Your task to perform on an android device: Empty the shopping cart on amazon. Image 0: 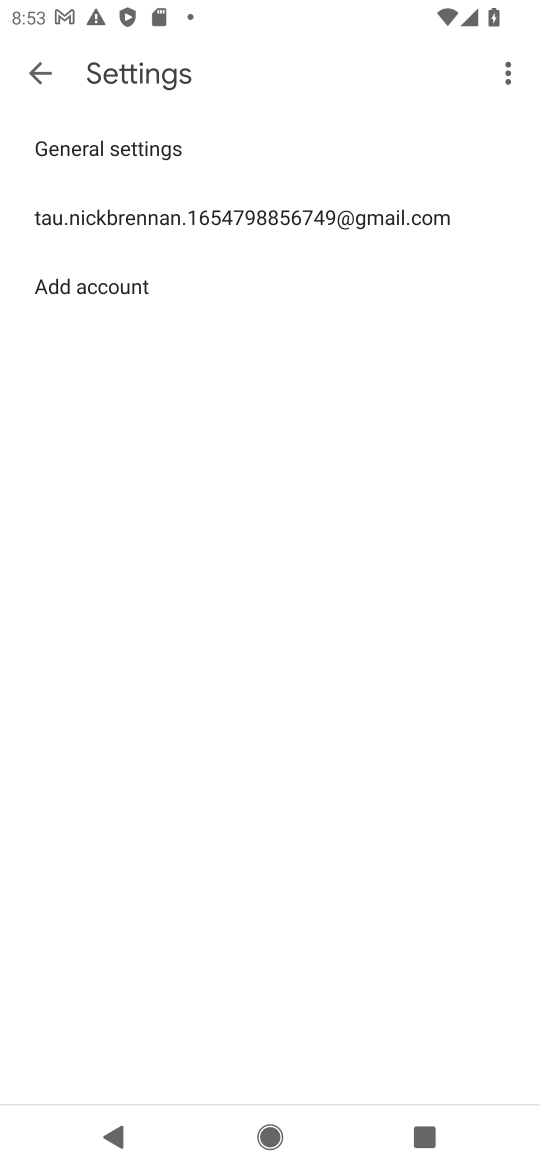
Step 0: press home button
Your task to perform on an android device: Empty the shopping cart on amazon. Image 1: 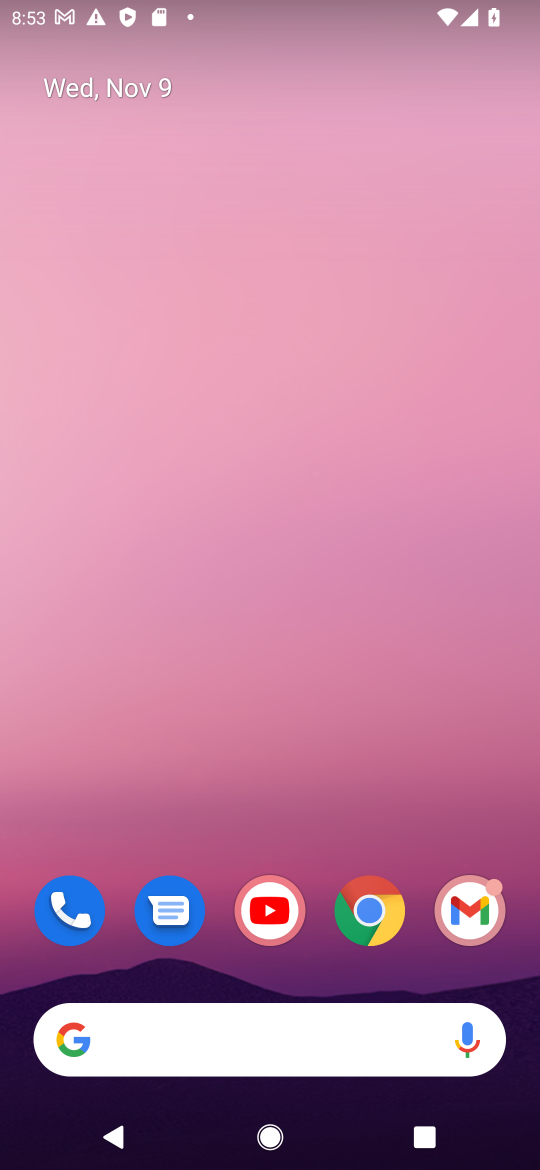
Step 1: click (373, 925)
Your task to perform on an android device: Empty the shopping cart on amazon. Image 2: 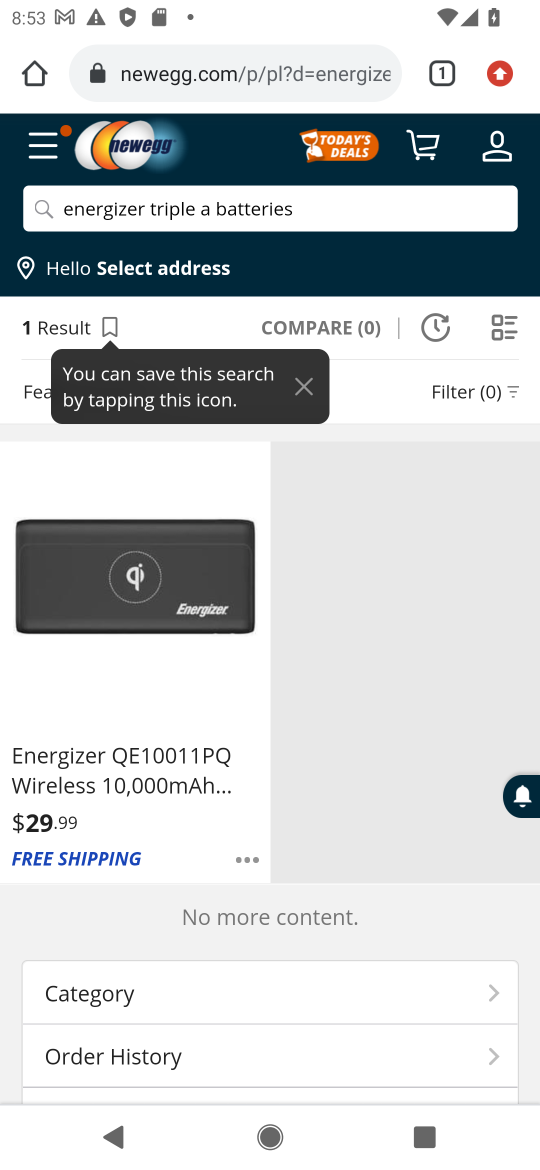
Step 2: click (209, 72)
Your task to perform on an android device: Empty the shopping cart on amazon. Image 3: 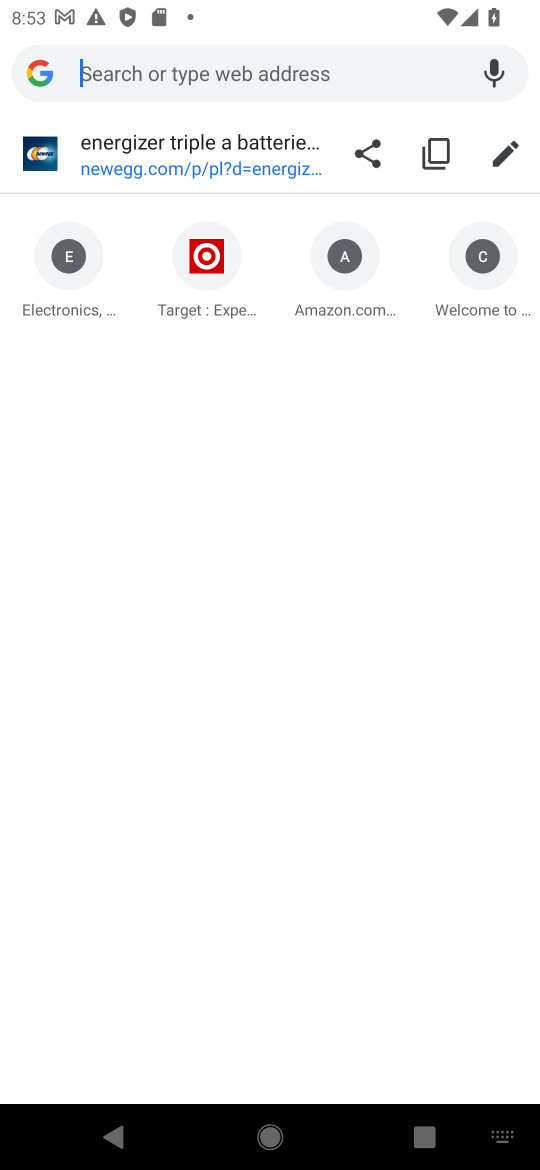
Step 3: click (340, 273)
Your task to perform on an android device: Empty the shopping cart on amazon. Image 4: 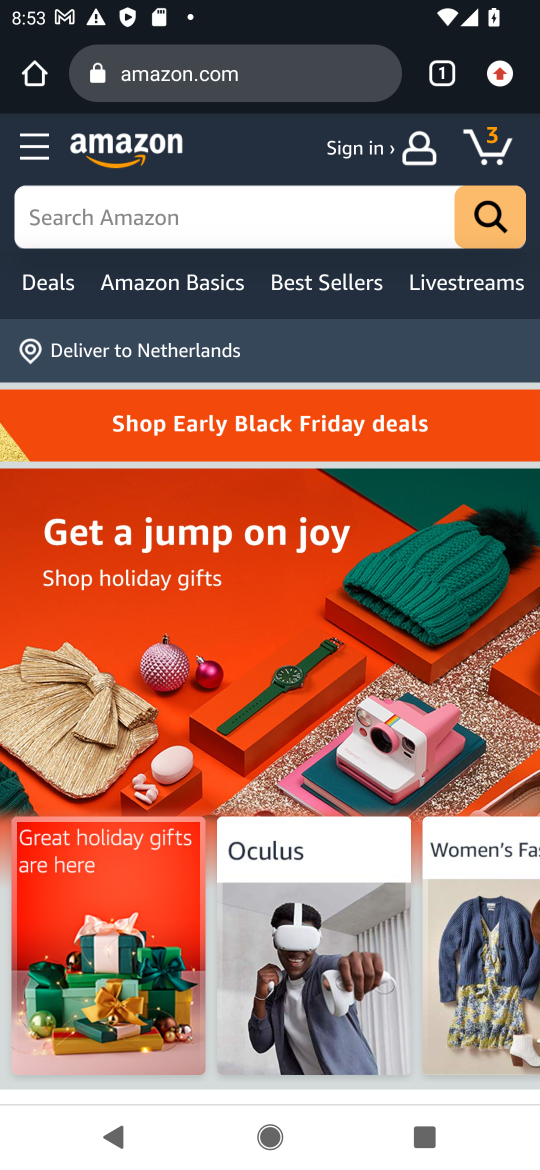
Step 4: click (480, 137)
Your task to perform on an android device: Empty the shopping cart on amazon. Image 5: 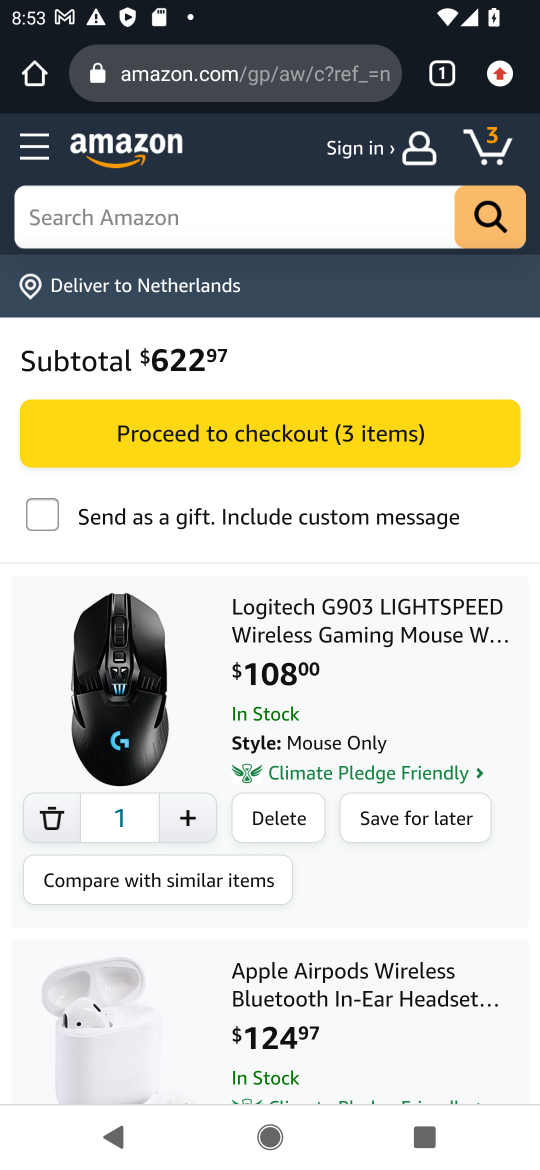
Step 5: click (295, 815)
Your task to perform on an android device: Empty the shopping cart on amazon. Image 6: 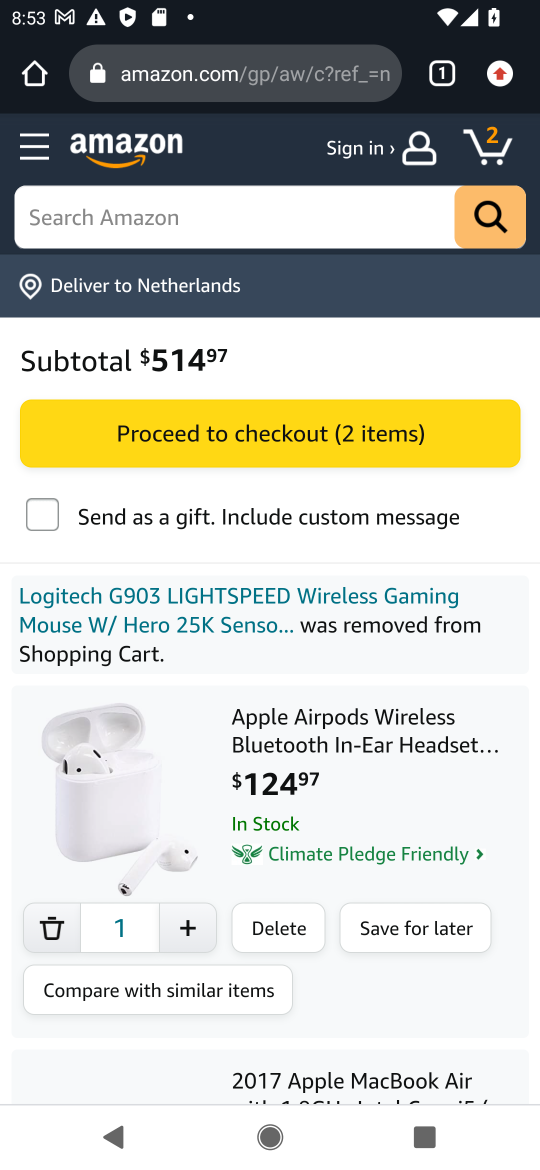
Step 6: click (279, 919)
Your task to perform on an android device: Empty the shopping cart on amazon. Image 7: 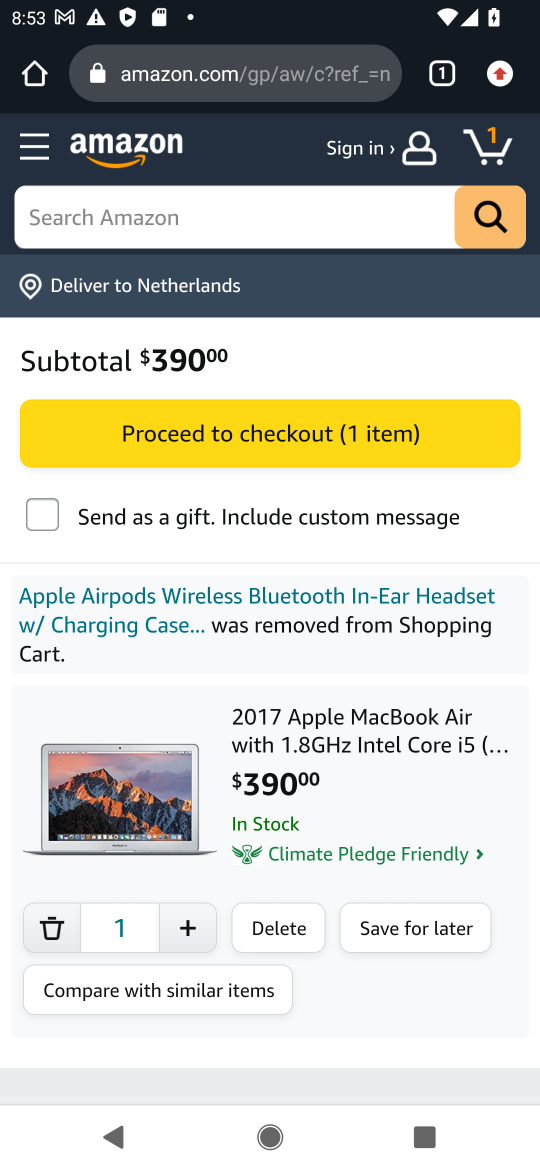
Step 7: click (278, 924)
Your task to perform on an android device: Empty the shopping cart on amazon. Image 8: 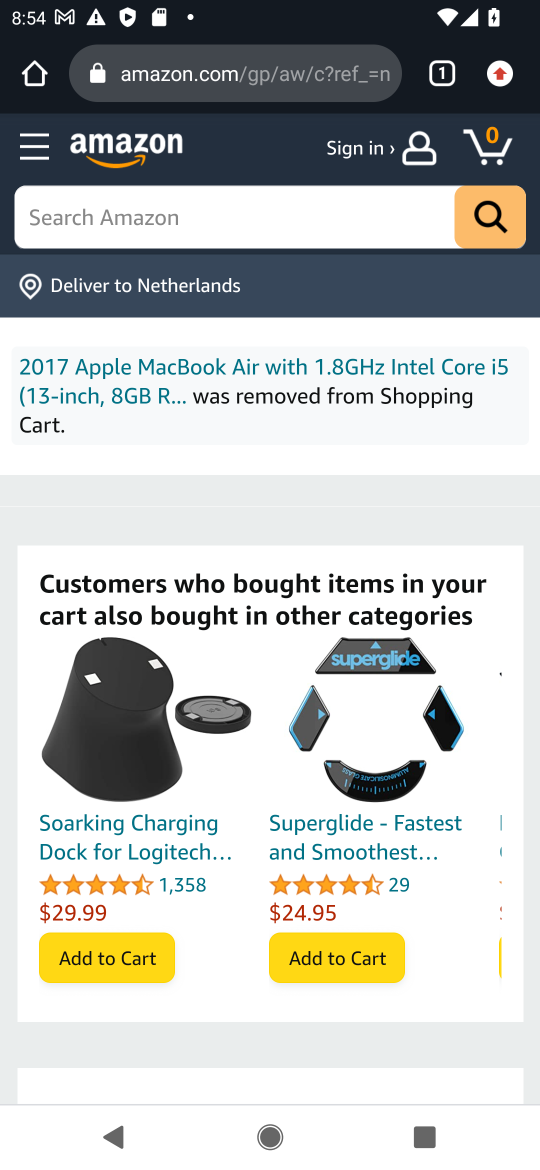
Step 8: task complete